Your task to perform on an android device: Open the stopwatch Image 0: 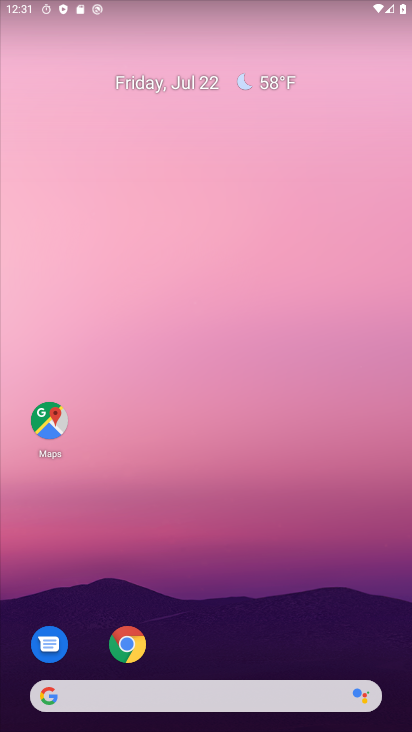
Step 0: click (355, 518)
Your task to perform on an android device: Open the stopwatch Image 1: 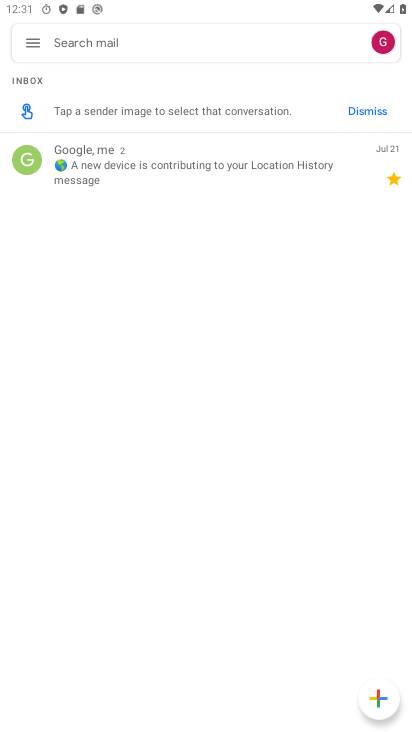
Step 1: drag from (264, 432) to (344, 279)
Your task to perform on an android device: Open the stopwatch Image 2: 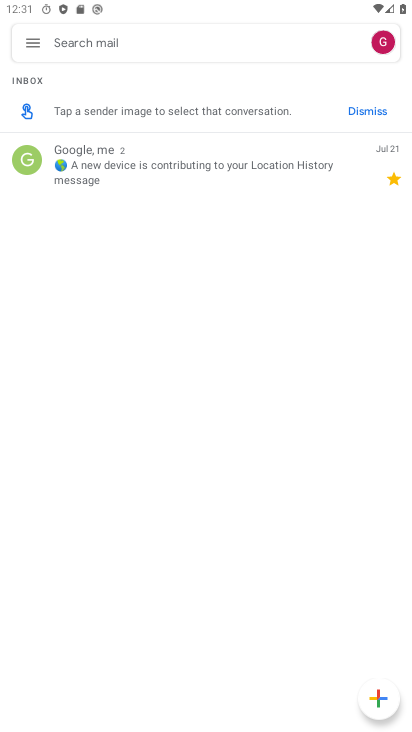
Step 2: press home button
Your task to perform on an android device: Open the stopwatch Image 3: 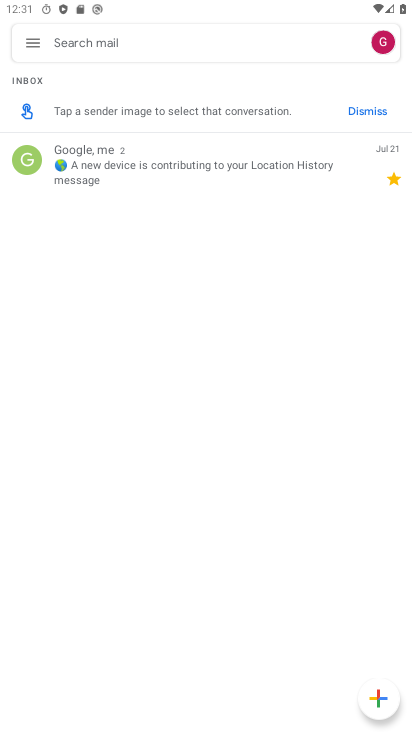
Step 3: drag from (114, 550) to (133, 260)
Your task to perform on an android device: Open the stopwatch Image 4: 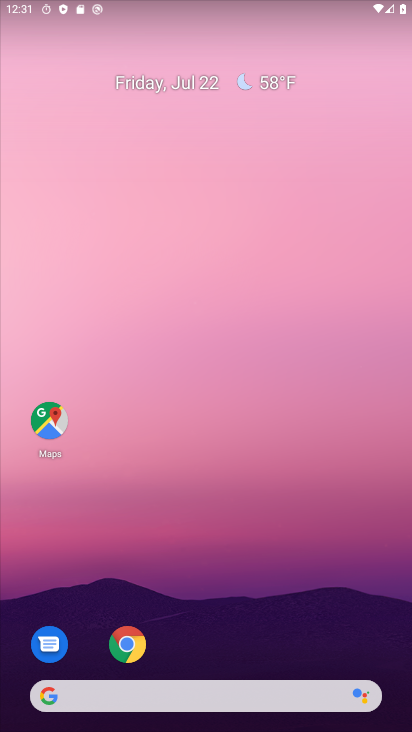
Step 4: drag from (216, 546) to (280, 89)
Your task to perform on an android device: Open the stopwatch Image 5: 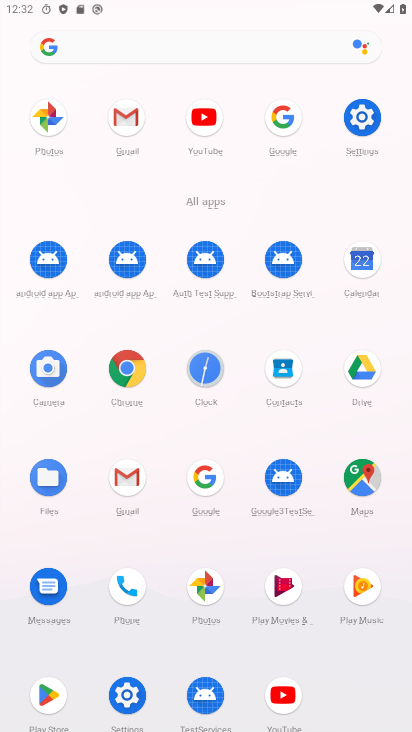
Step 5: click (203, 377)
Your task to perform on an android device: Open the stopwatch Image 6: 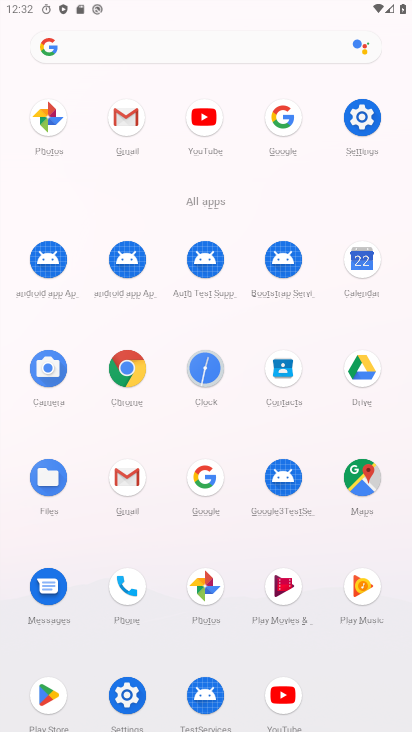
Step 6: click (202, 376)
Your task to perform on an android device: Open the stopwatch Image 7: 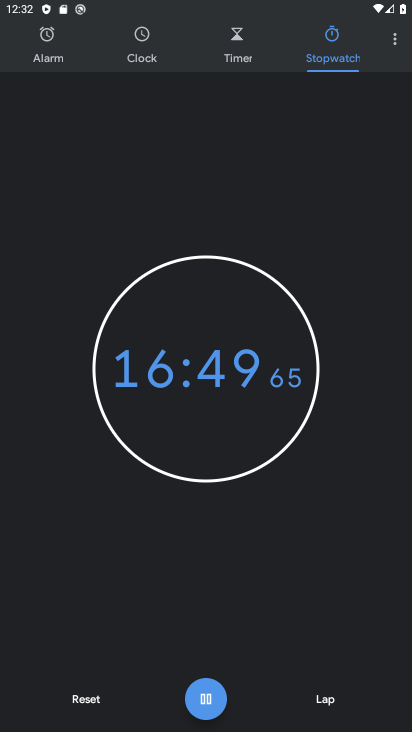
Step 7: task complete